Your task to perform on an android device: snooze an email in the gmail app Image 0: 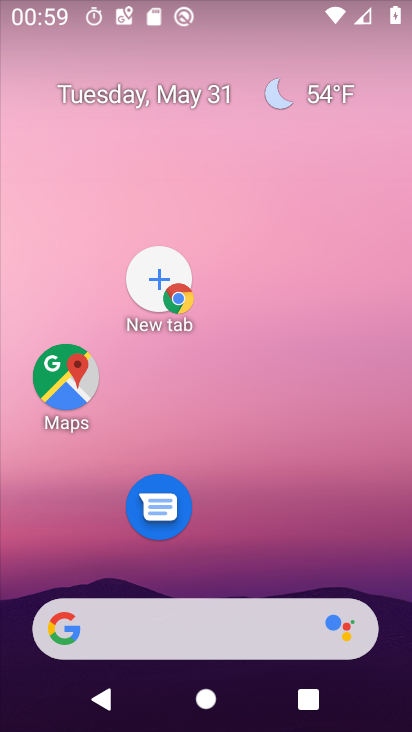
Step 0: click (246, 365)
Your task to perform on an android device: snooze an email in the gmail app Image 1: 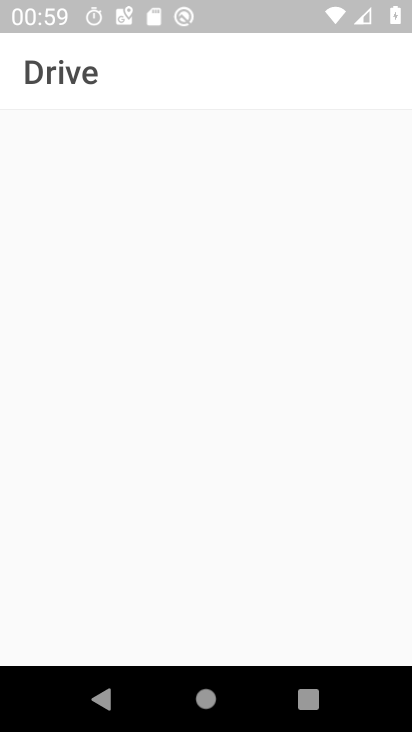
Step 1: press back button
Your task to perform on an android device: snooze an email in the gmail app Image 2: 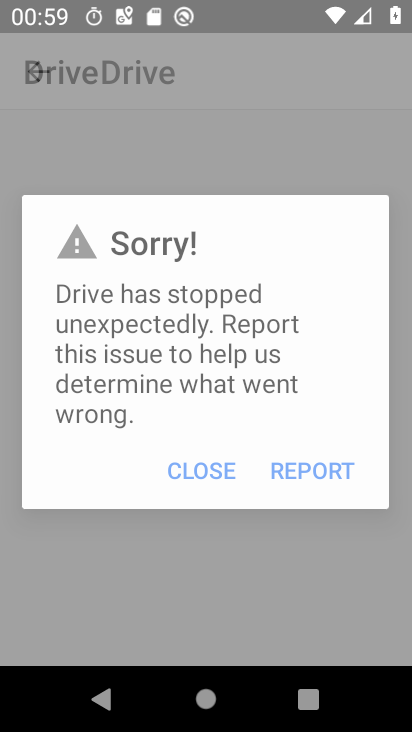
Step 2: press back button
Your task to perform on an android device: snooze an email in the gmail app Image 3: 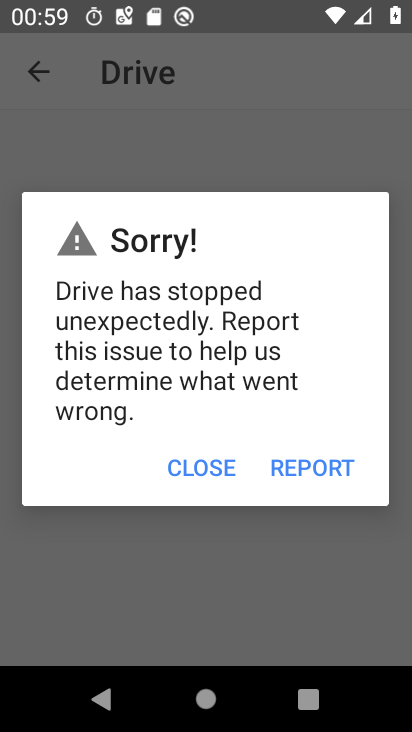
Step 3: click (202, 460)
Your task to perform on an android device: snooze an email in the gmail app Image 4: 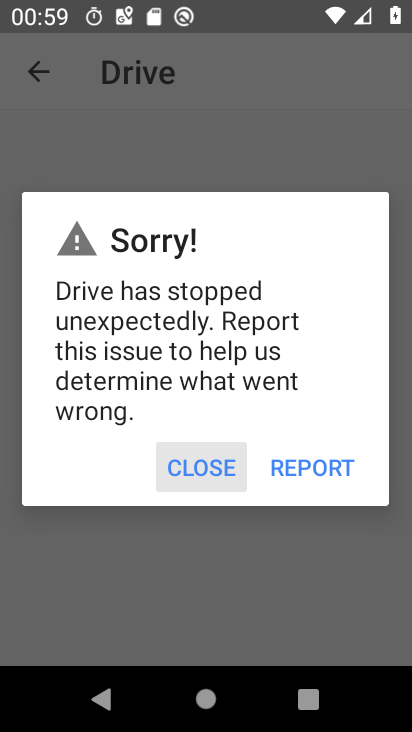
Step 4: click (202, 445)
Your task to perform on an android device: snooze an email in the gmail app Image 5: 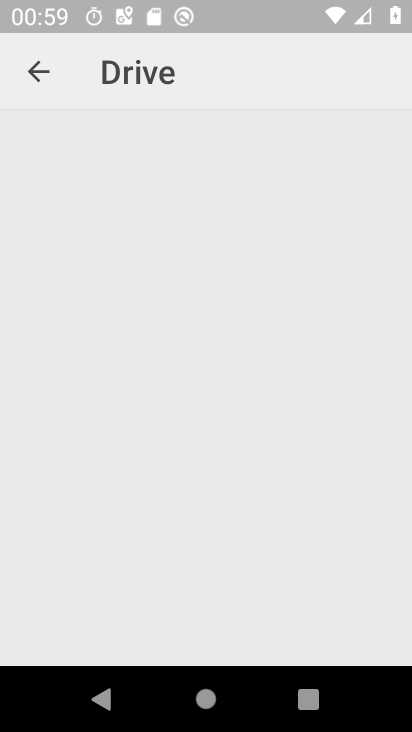
Step 5: click (202, 444)
Your task to perform on an android device: snooze an email in the gmail app Image 6: 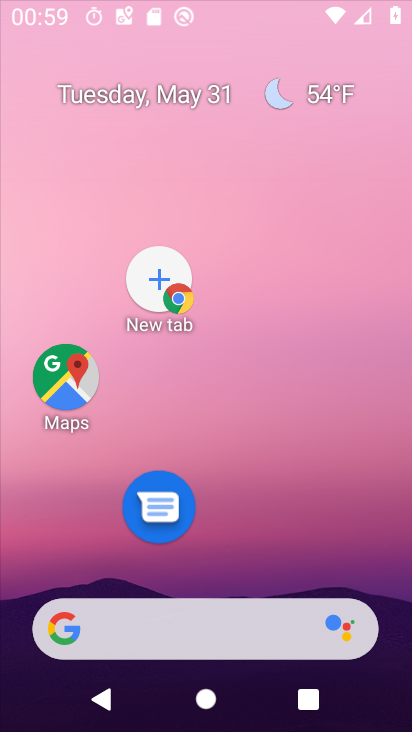
Step 6: click (203, 447)
Your task to perform on an android device: snooze an email in the gmail app Image 7: 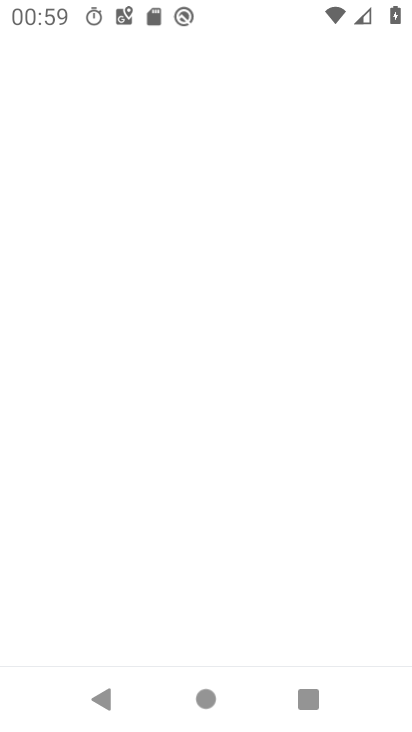
Step 7: press home button
Your task to perform on an android device: snooze an email in the gmail app Image 8: 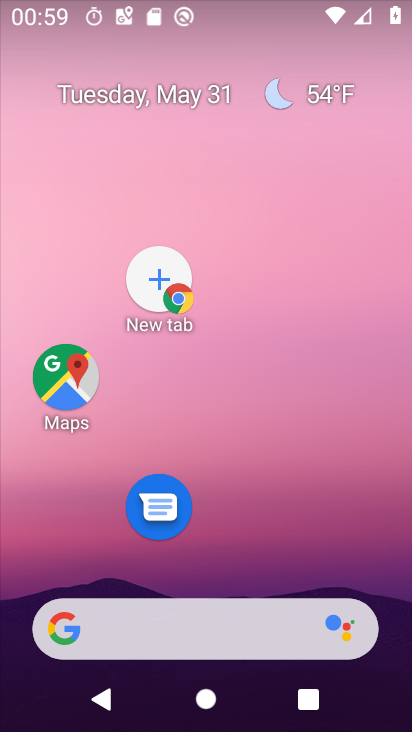
Step 8: drag from (263, 672) to (208, 203)
Your task to perform on an android device: snooze an email in the gmail app Image 9: 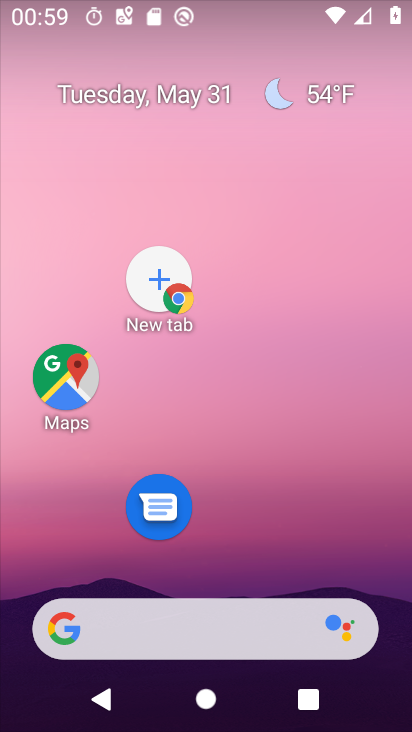
Step 9: drag from (270, 668) to (184, 291)
Your task to perform on an android device: snooze an email in the gmail app Image 10: 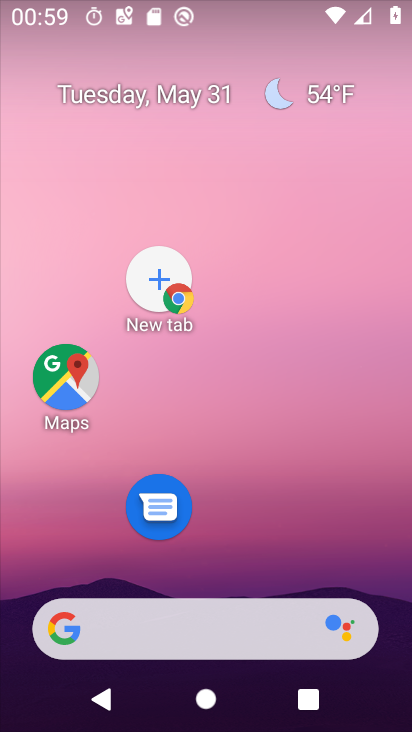
Step 10: drag from (269, 666) to (260, 255)
Your task to perform on an android device: snooze an email in the gmail app Image 11: 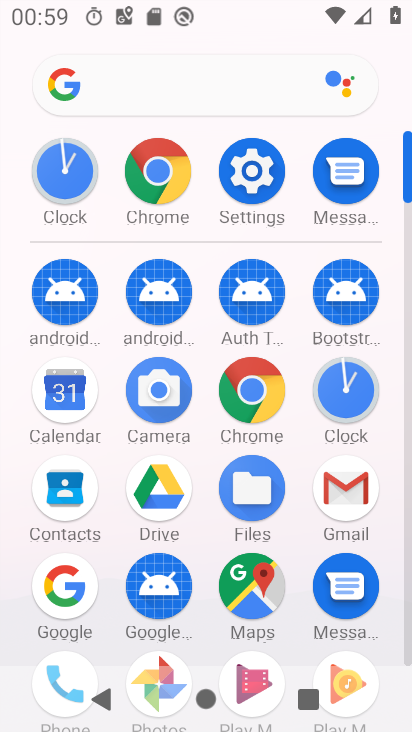
Step 11: click (349, 476)
Your task to perform on an android device: snooze an email in the gmail app Image 12: 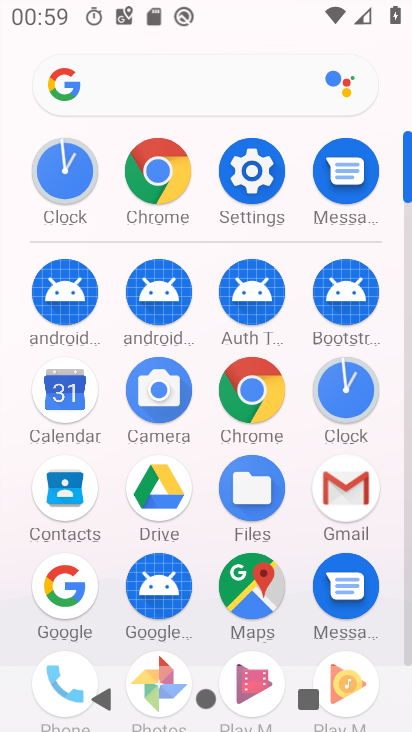
Step 12: click (349, 477)
Your task to perform on an android device: snooze an email in the gmail app Image 13: 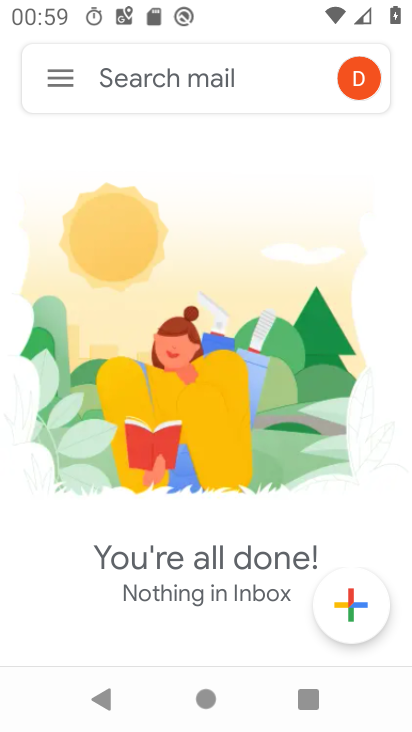
Step 13: click (68, 74)
Your task to perform on an android device: snooze an email in the gmail app Image 14: 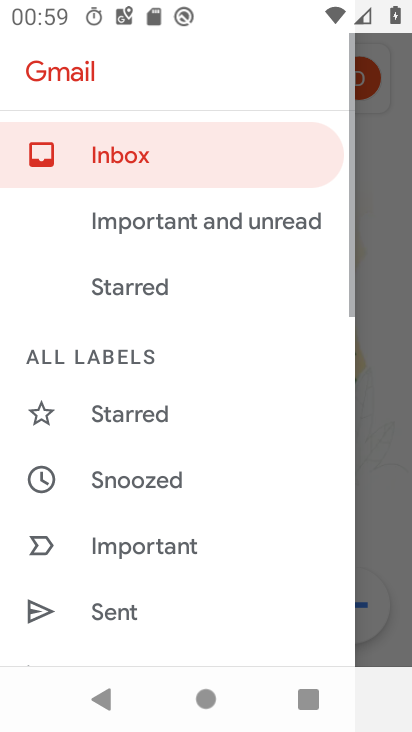
Step 14: click (68, 74)
Your task to perform on an android device: snooze an email in the gmail app Image 15: 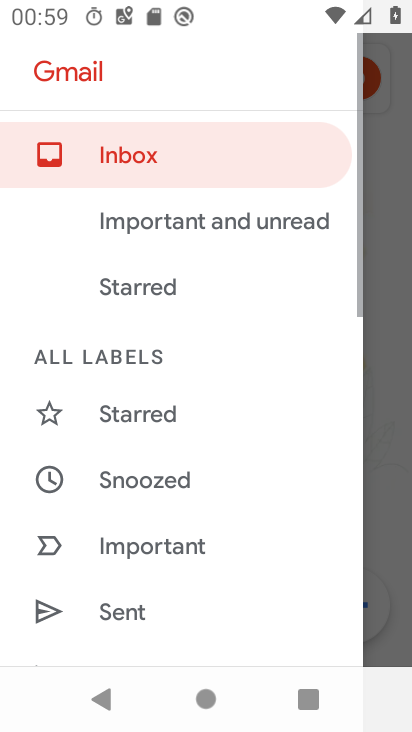
Step 15: click (68, 74)
Your task to perform on an android device: snooze an email in the gmail app Image 16: 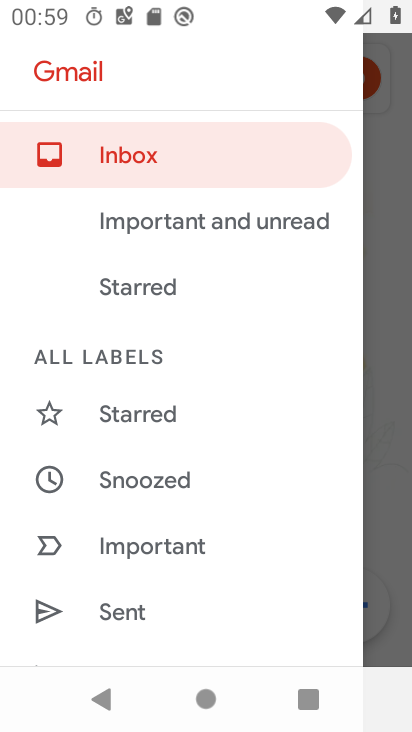
Step 16: click (172, 478)
Your task to perform on an android device: snooze an email in the gmail app Image 17: 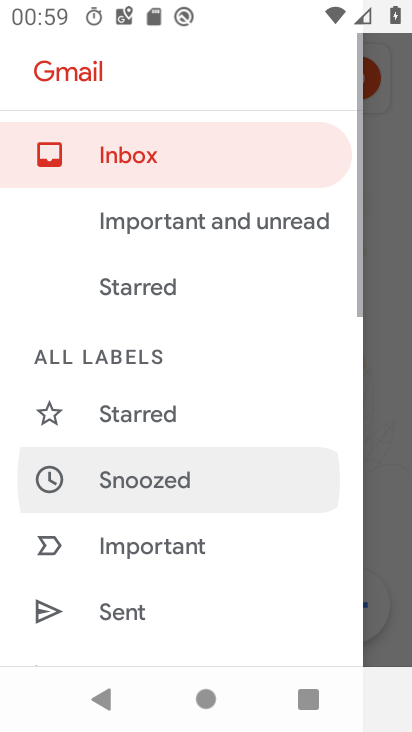
Step 17: click (172, 478)
Your task to perform on an android device: snooze an email in the gmail app Image 18: 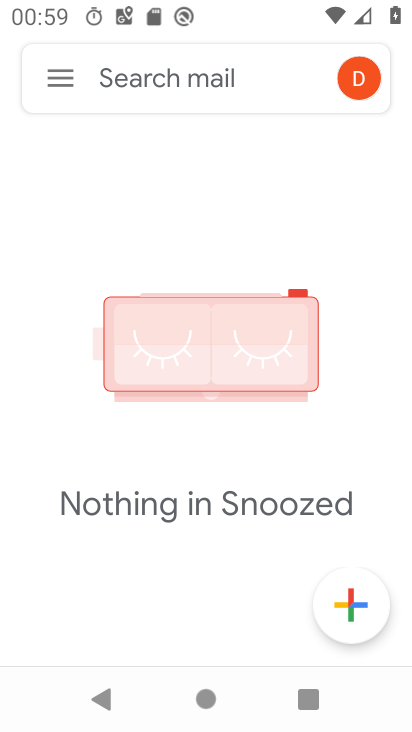
Step 18: task complete